Your task to perform on an android device: empty trash in google photos Image 0: 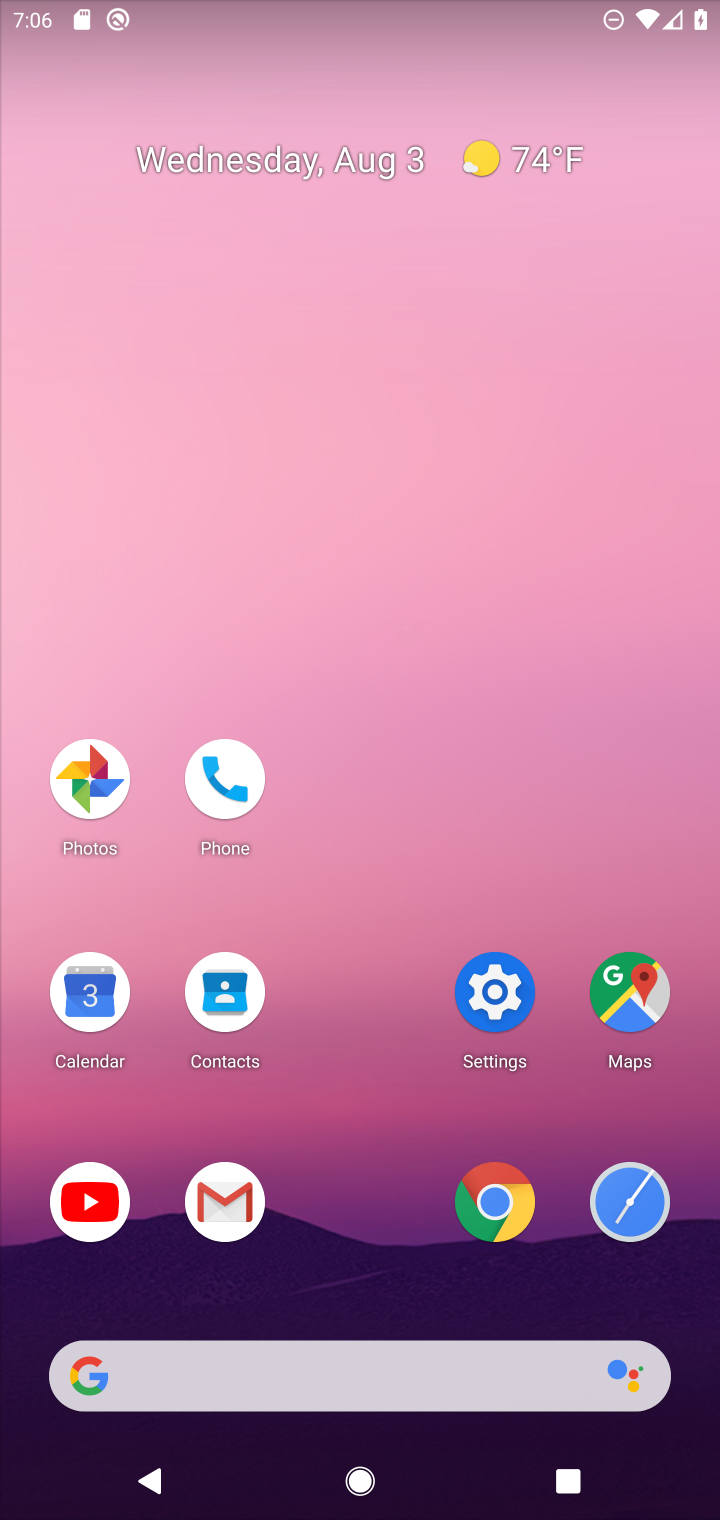
Step 0: click (91, 775)
Your task to perform on an android device: empty trash in google photos Image 1: 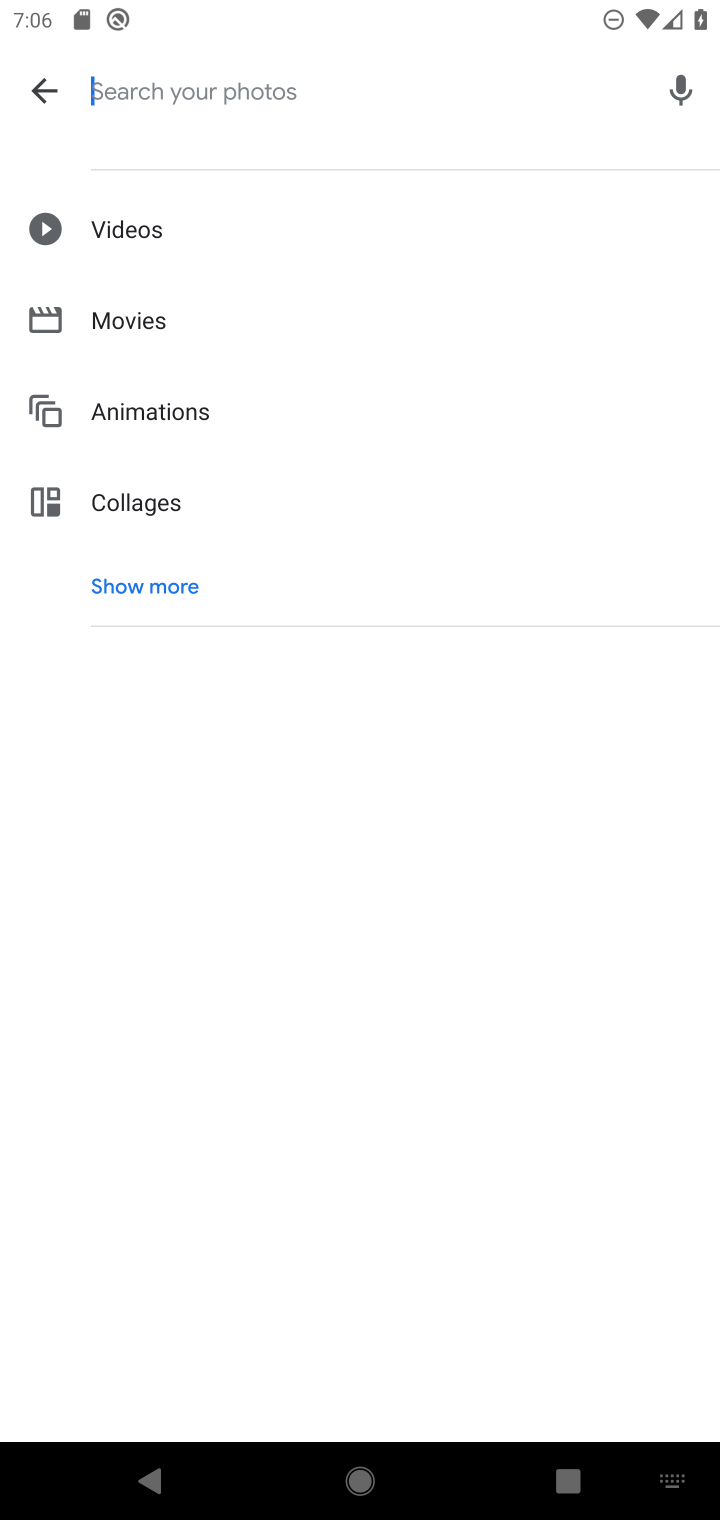
Step 1: click (43, 83)
Your task to perform on an android device: empty trash in google photos Image 2: 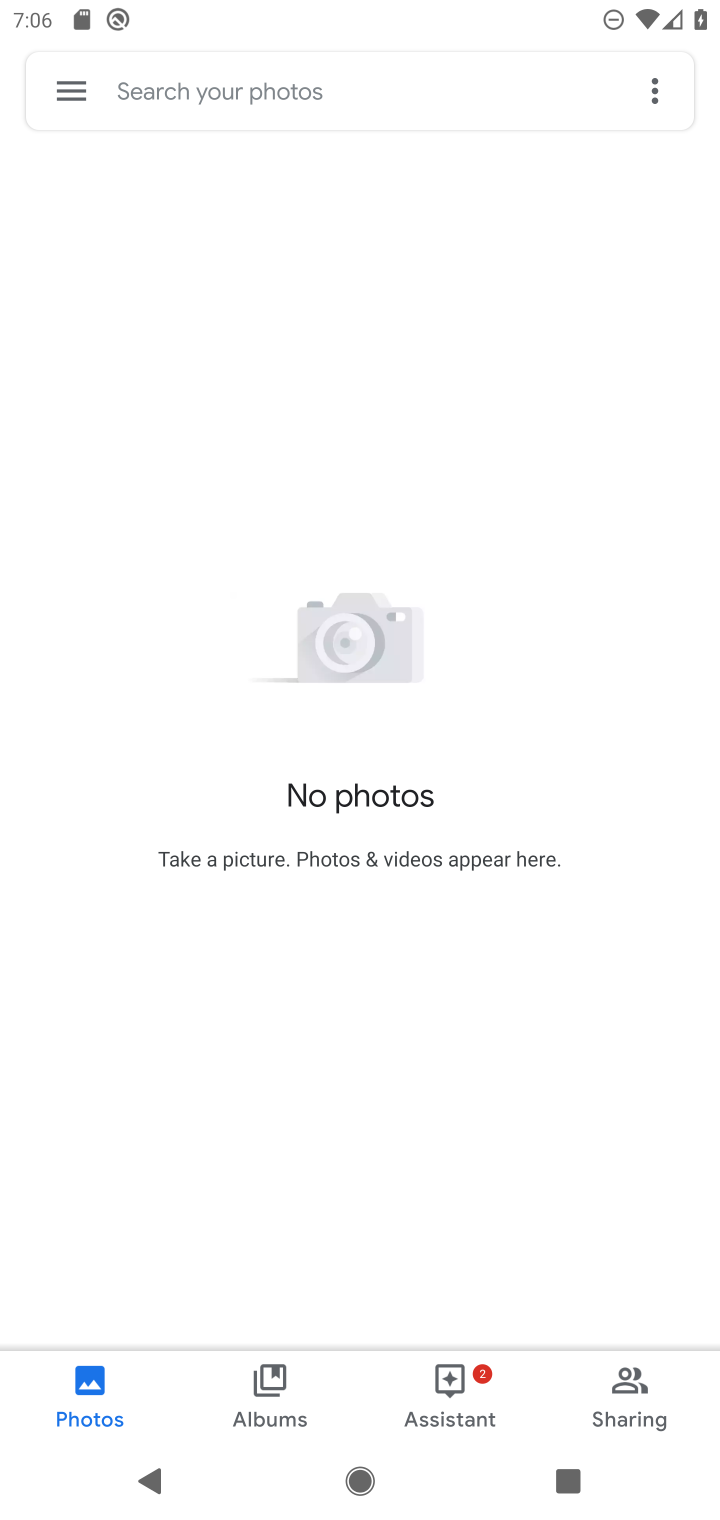
Step 2: click (62, 89)
Your task to perform on an android device: empty trash in google photos Image 3: 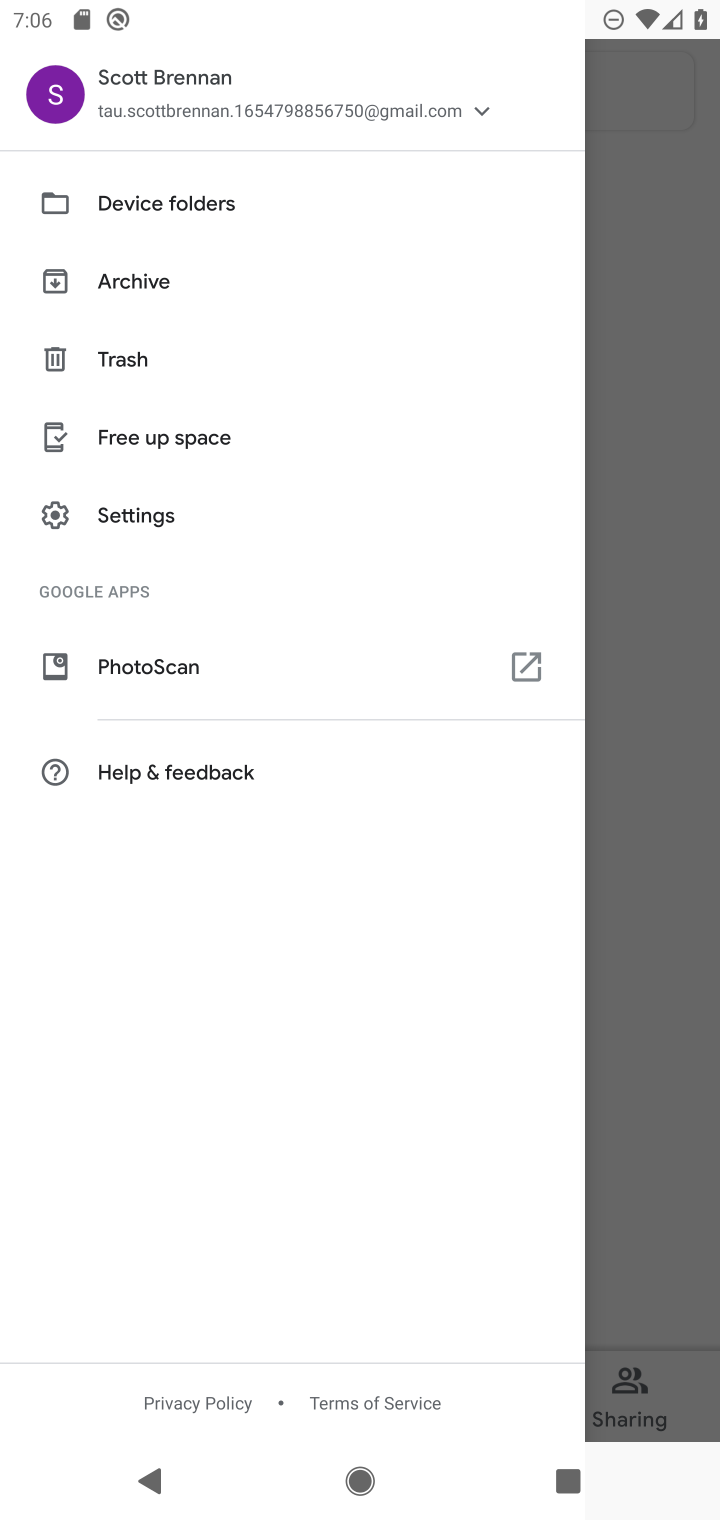
Step 3: click (116, 352)
Your task to perform on an android device: empty trash in google photos Image 4: 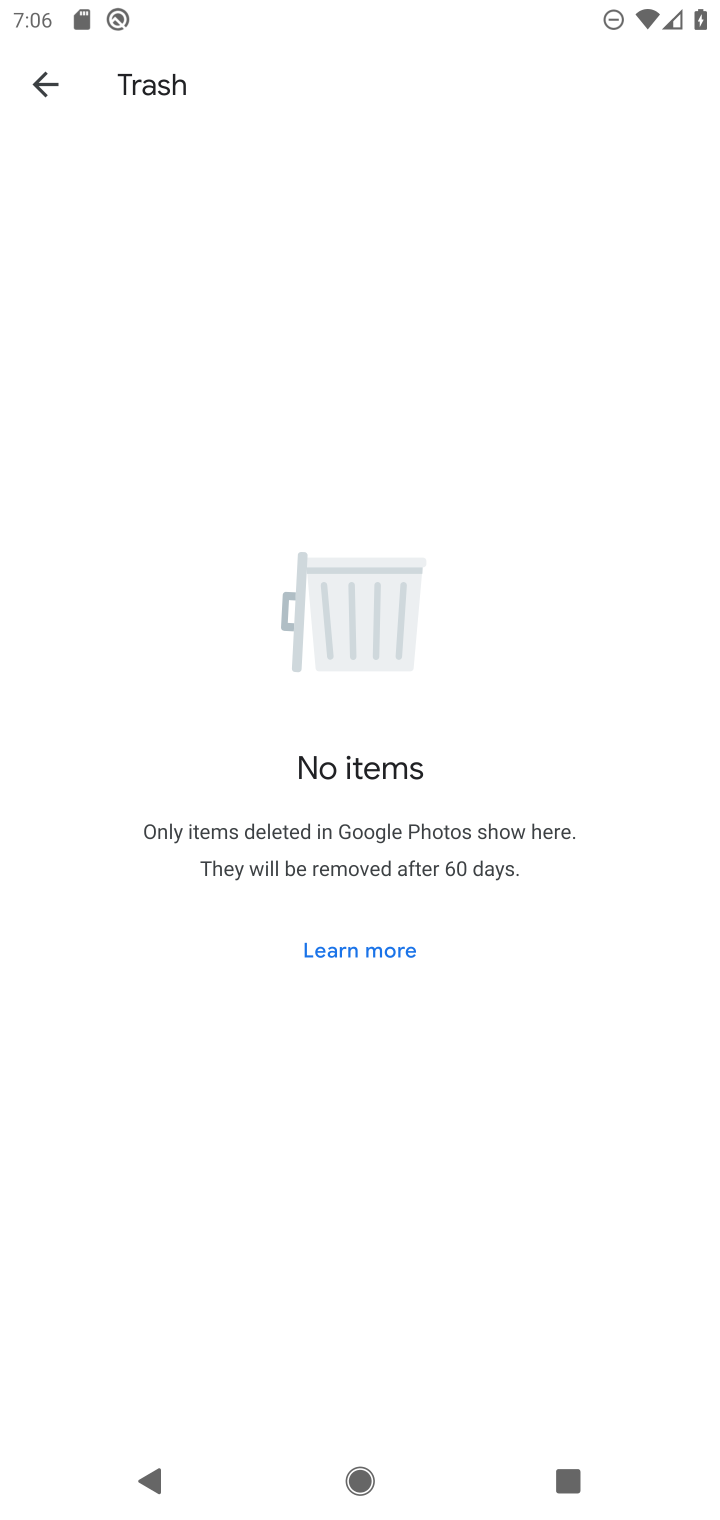
Step 4: task complete